Your task to perform on an android device: Open internet settings Image 0: 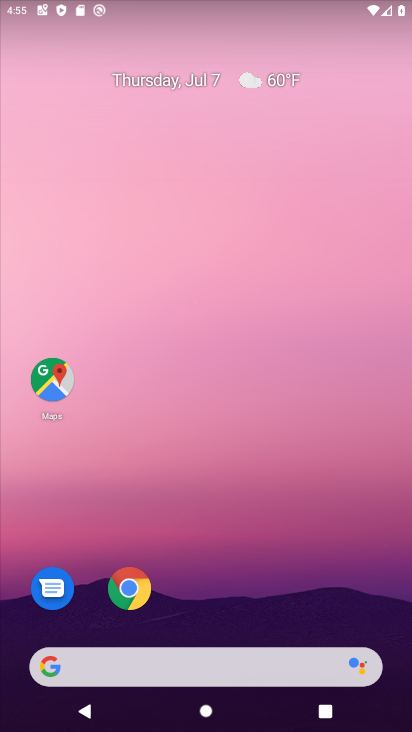
Step 0: drag from (181, 630) to (244, 0)
Your task to perform on an android device: Open internet settings Image 1: 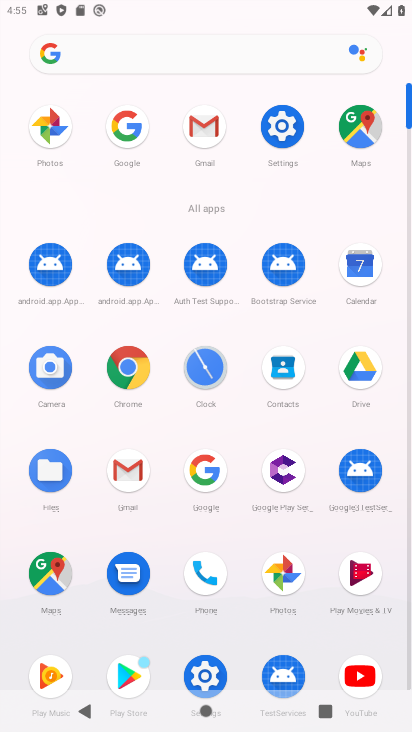
Step 1: click (289, 140)
Your task to perform on an android device: Open internet settings Image 2: 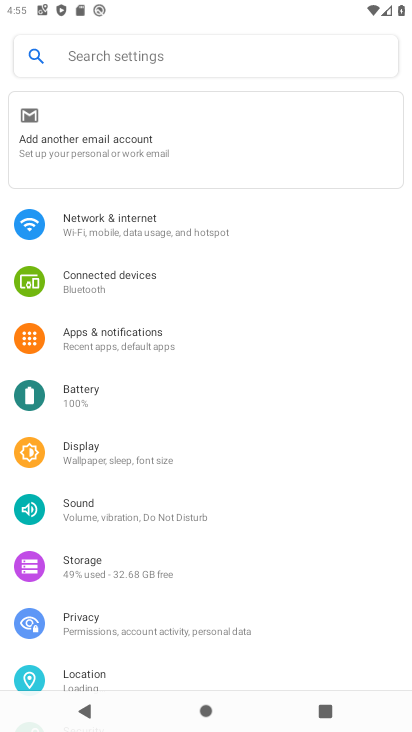
Step 2: click (103, 225)
Your task to perform on an android device: Open internet settings Image 3: 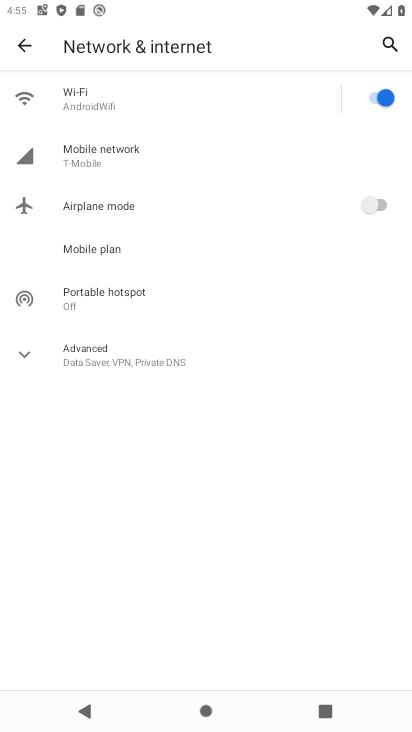
Step 3: task complete